Your task to perform on an android device: Turn on the flashlight Image 0: 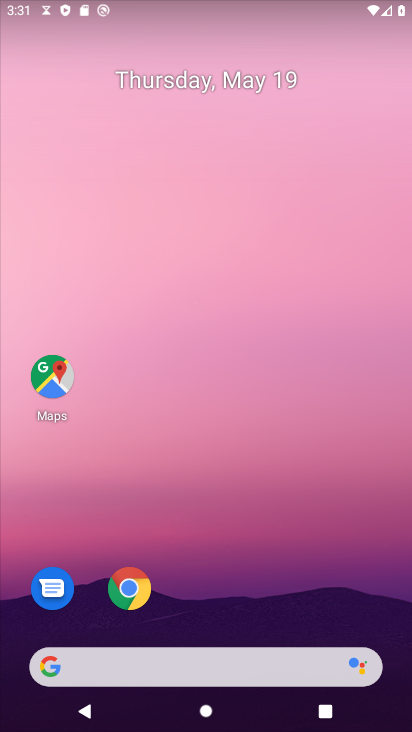
Step 0: drag from (216, 323) to (226, 268)
Your task to perform on an android device: Turn on the flashlight Image 1: 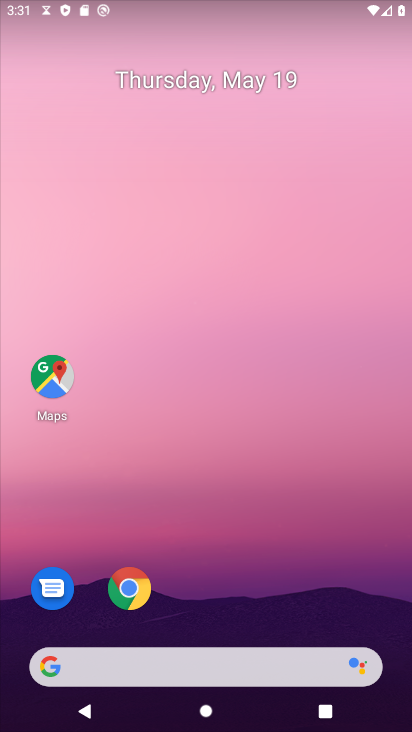
Step 1: drag from (200, 555) to (188, 98)
Your task to perform on an android device: Turn on the flashlight Image 2: 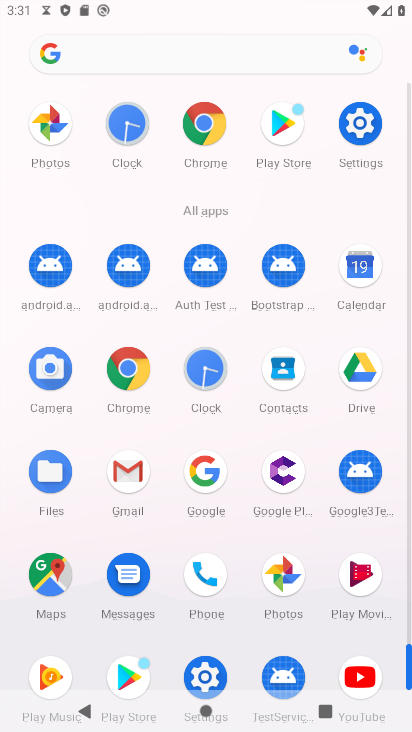
Step 2: click (358, 129)
Your task to perform on an android device: Turn on the flashlight Image 3: 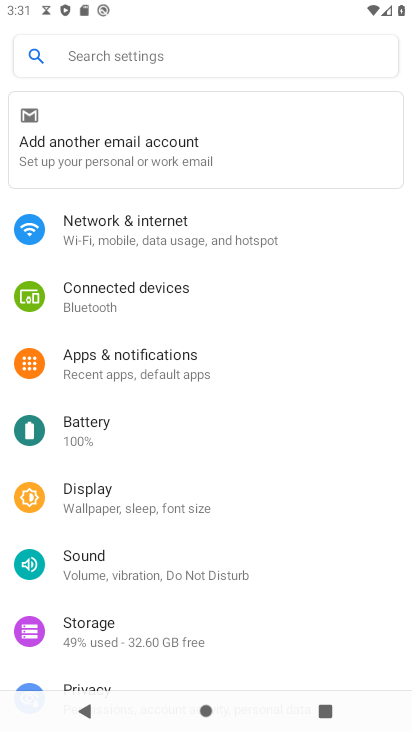
Step 3: click (198, 58)
Your task to perform on an android device: Turn on the flashlight Image 4: 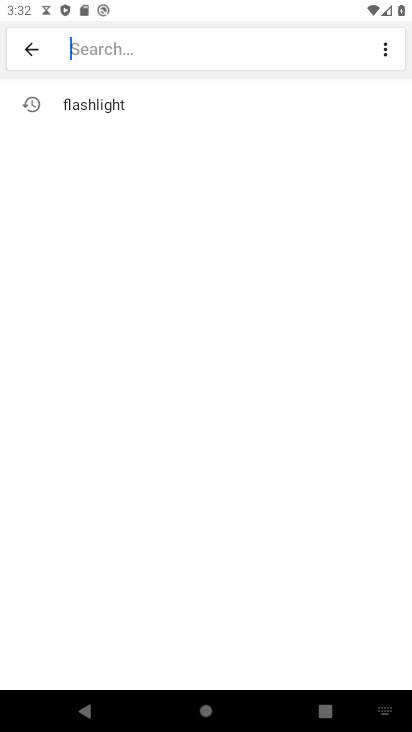
Step 4: type "flashlight"
Your task to perform on an android device: Turn on the flashlight Image 5: 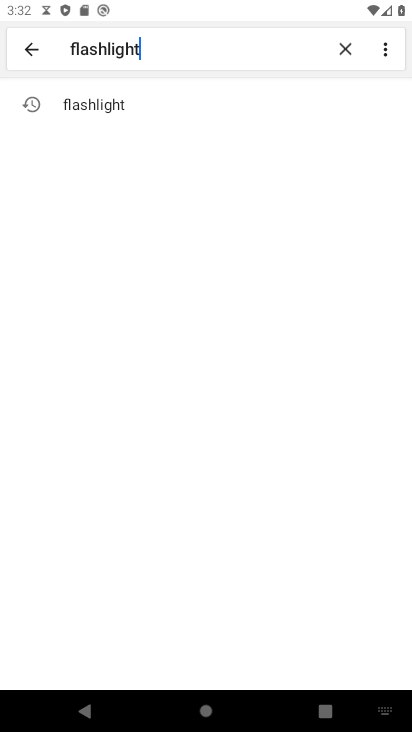
Step 5: click (98, 109)
Your task to perform on an android device: Turn on the flashlight Image 6: 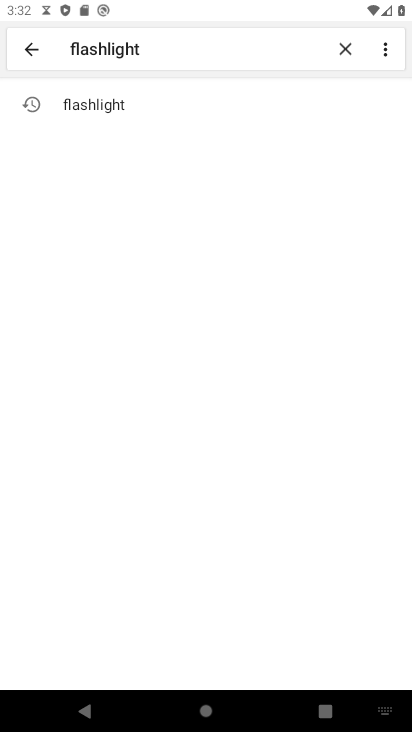
Step 6: click (118, 117)
Your task to perform on an android device: Turn on the flashlight Image 7: 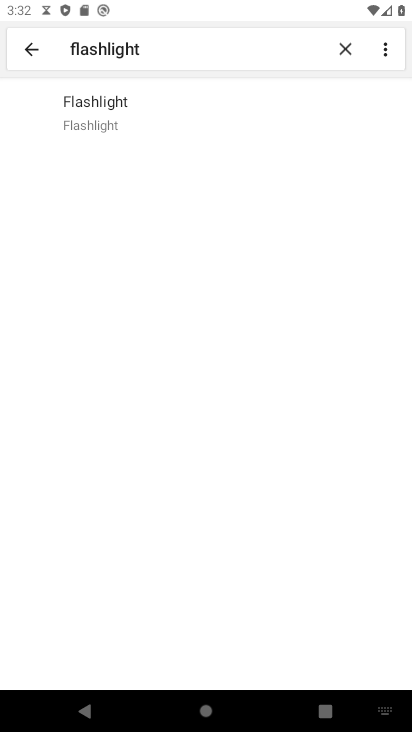
Step 7: task complete